Your task to perform on an android device: allow notifications from all sites in the chrome app Image 0: 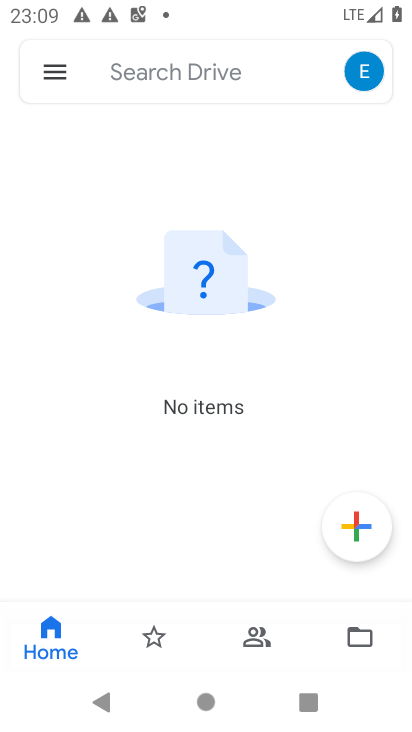
Step 0: press back button
Your task to perform on an android device: allow notifications from all sites in the chrome app Image 1: 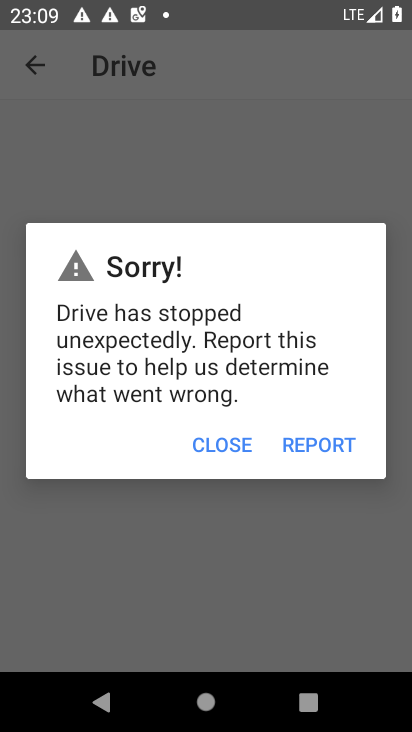
Step 1: press home button
Your task to perform on an android device: allow notifications from all sites in the chrome app Image 2: 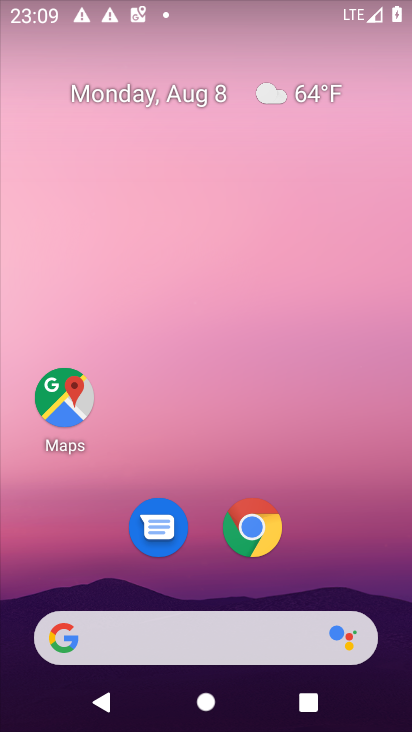
Step 2: click (249, 531)
Your task to perform on an android device: allow notifications from all sites in the chrome app Image 3: 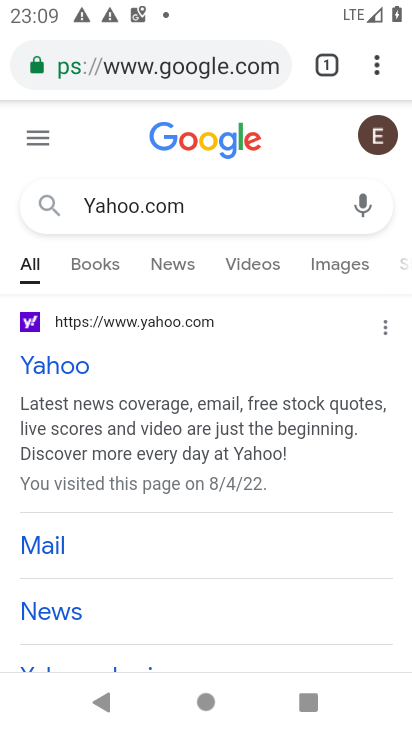
Step 3: click (375, 63)
Your task to perform on an android device: allow notifications from all sites in the chrome app Image 4: 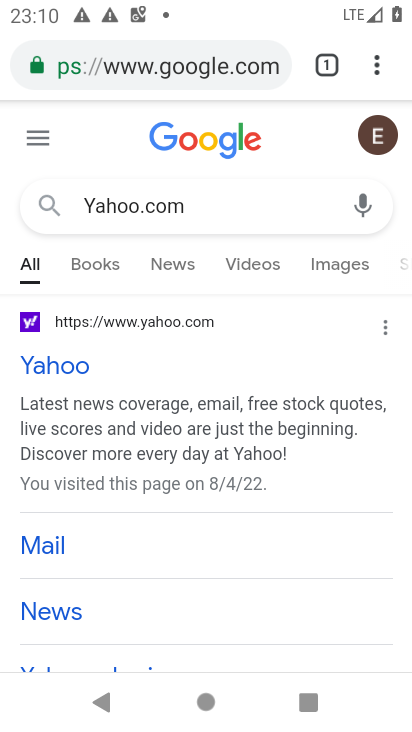
Step 4: click (375, 63)
Your task to perform on an android device: allow notifications from all sites in the chrome app Image 5: 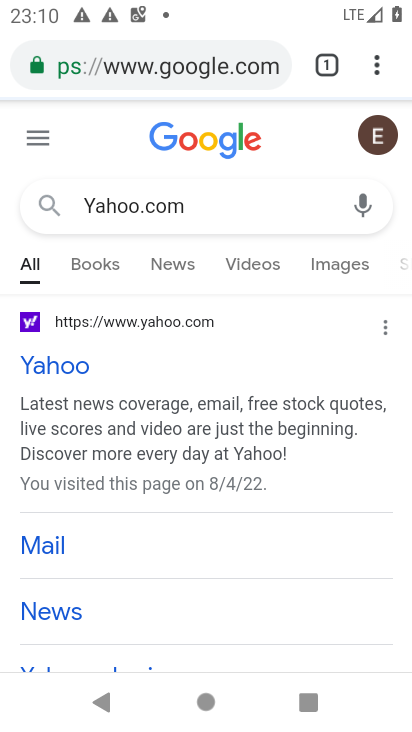
Step 5: click (375, 63)
Your task to perform on an android device: allow notifications from all sites in the chrome app Image 6: 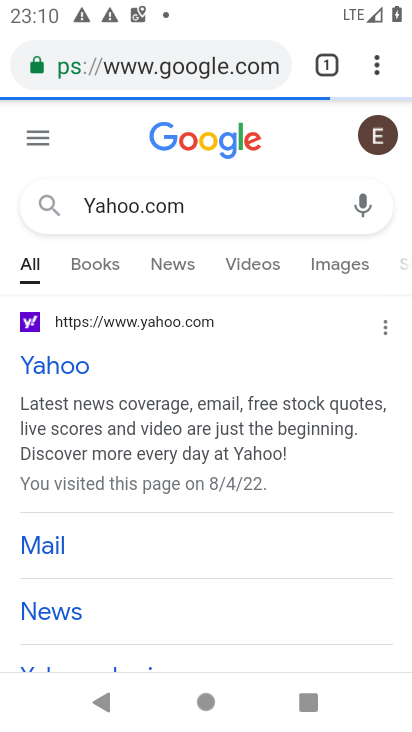
Step 6: click (375, 63)
Your task to perform on an android device: allow notifications from all sites in the chrome app Image 7: 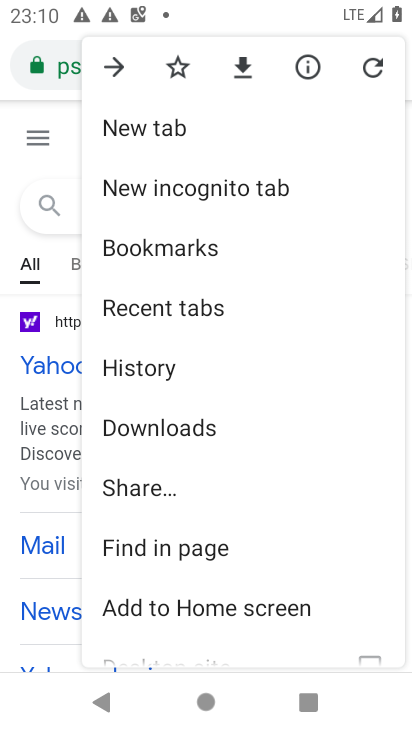
Step 7: drag from (295, 621) to (290, 257)
Your task to perform on an android device: allow notifications from all sites in the chrome app Image 8: 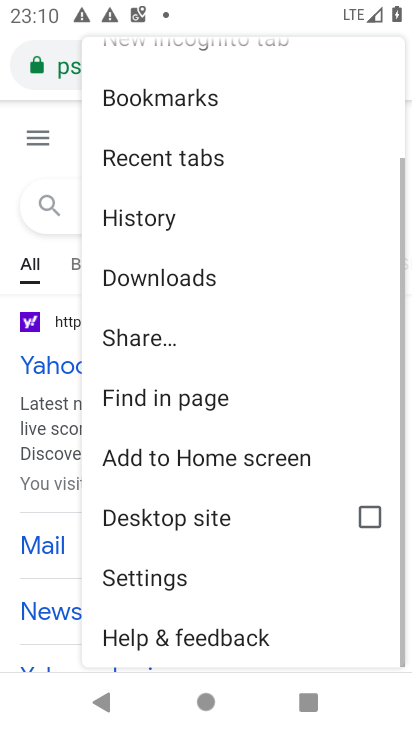
Step 8: click (163, 582)
Your task to perform on an android device: allow notifications from all sites in the chrome app Image 9: 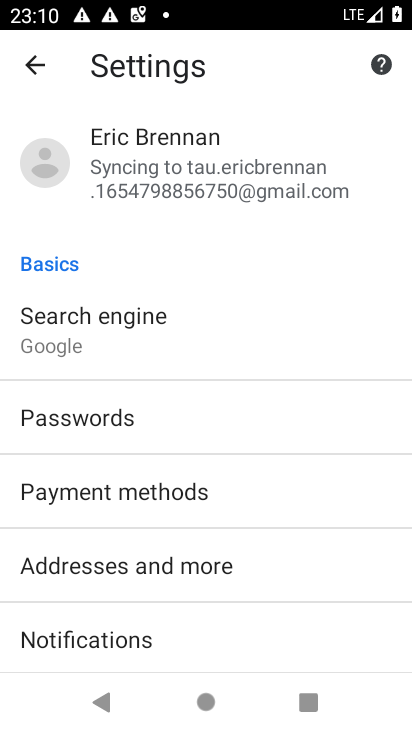
Step 9: drag from (255, 650) to (275, 325)
Your task to perform on an android device: allow notifications from all sites in the chrome app Image 10: 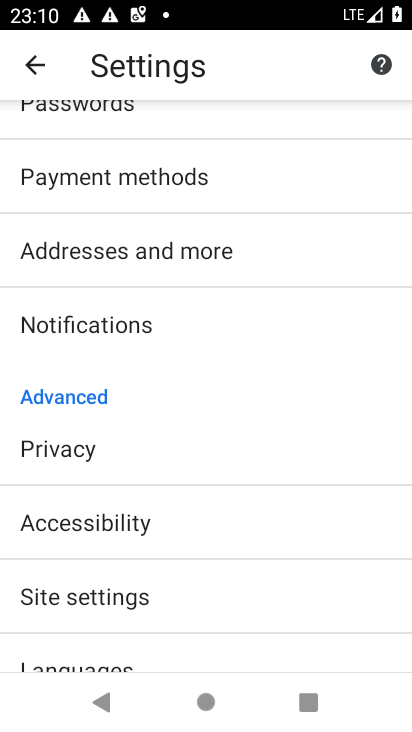
Step 10: click (83, 598)
Your task to perform on an android device: allow notifications from all sites in the chrome app Image 11: 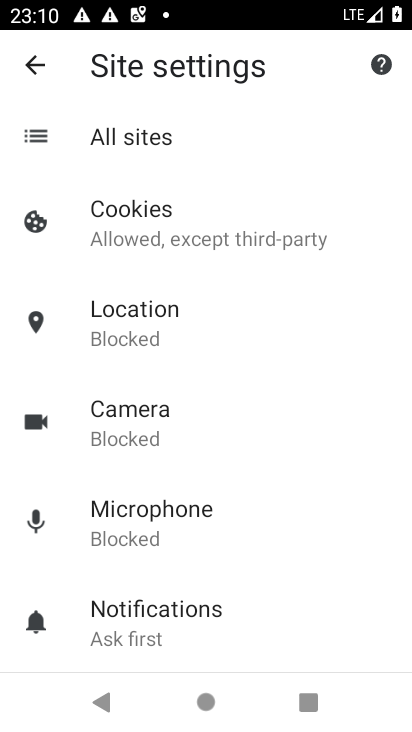
Step 11: click (125, 620)
Your task to perform on an android device: allow notifications from all sites in the chrome app Image 12: 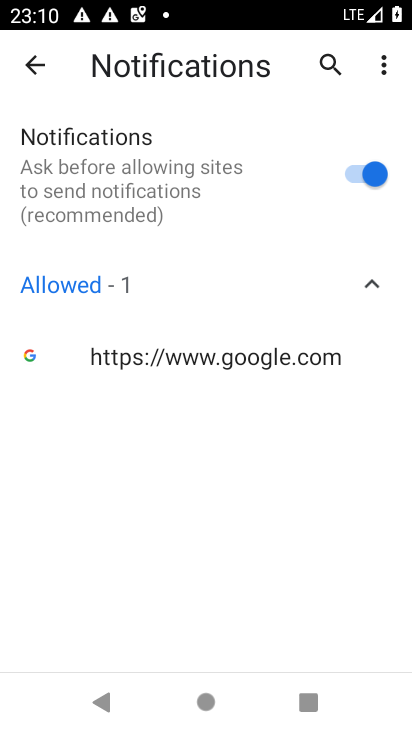
Step 12: task complete